Your task to perform on an android device: What is the recent news? Image 0: 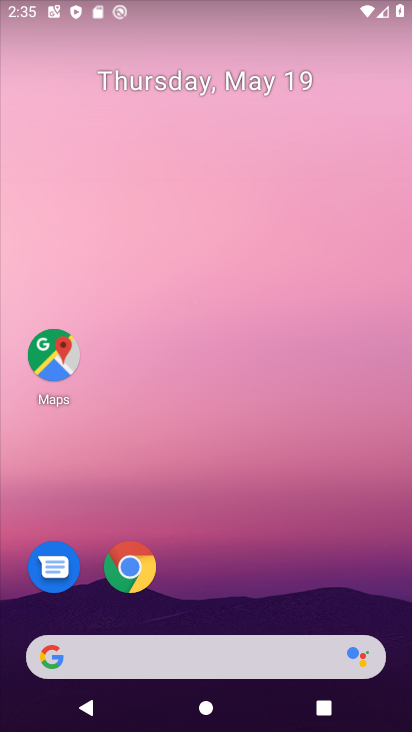
Step 0: drag from (3, 281) to (340, 314)
Your task to perform on an android device: What is the recent news? Image 1: 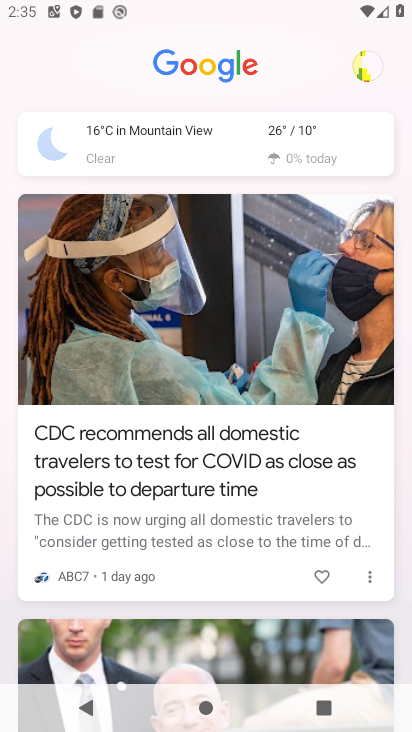
Step 1: task complete